Your task to perform on an android device: Is it going to rain today? Image 0: 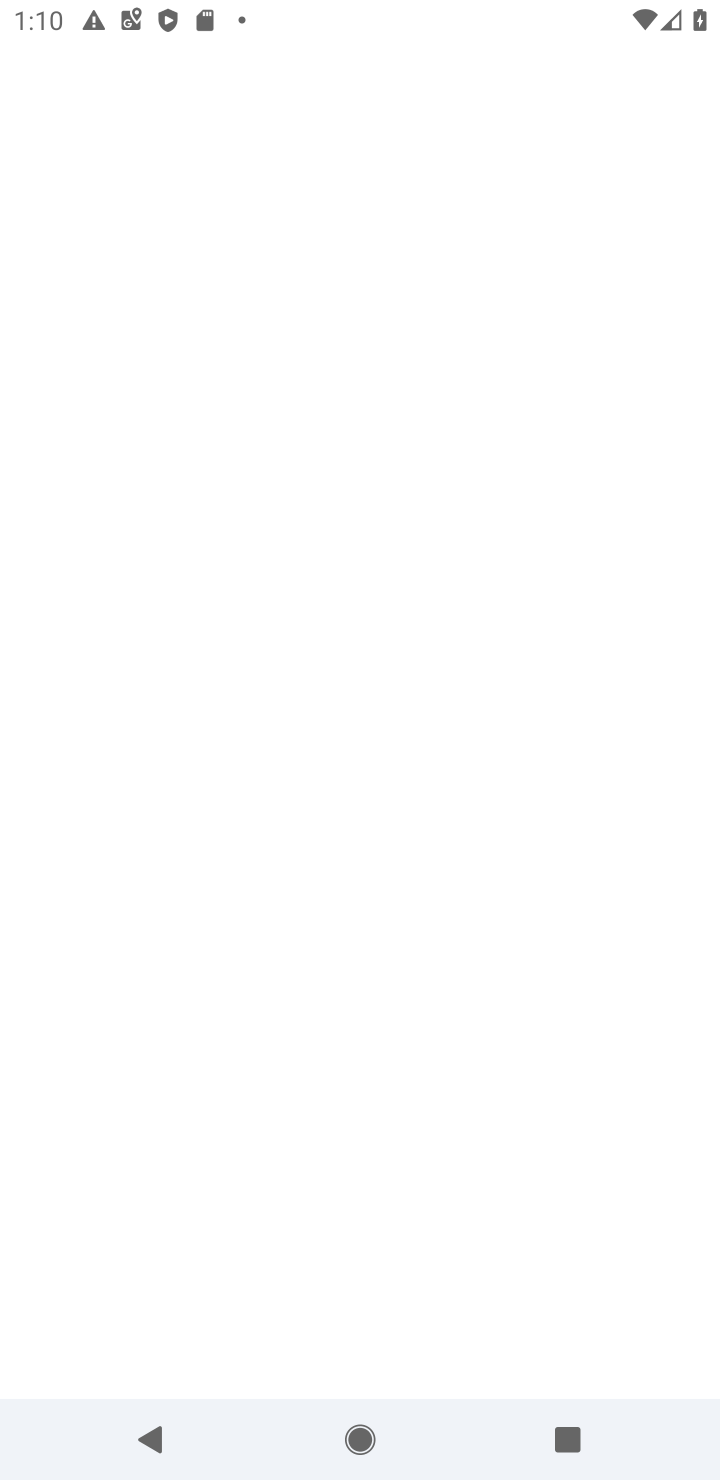
Step 0: press home button
Your task to perform on an android device: Is it going to rain today? Image 1: 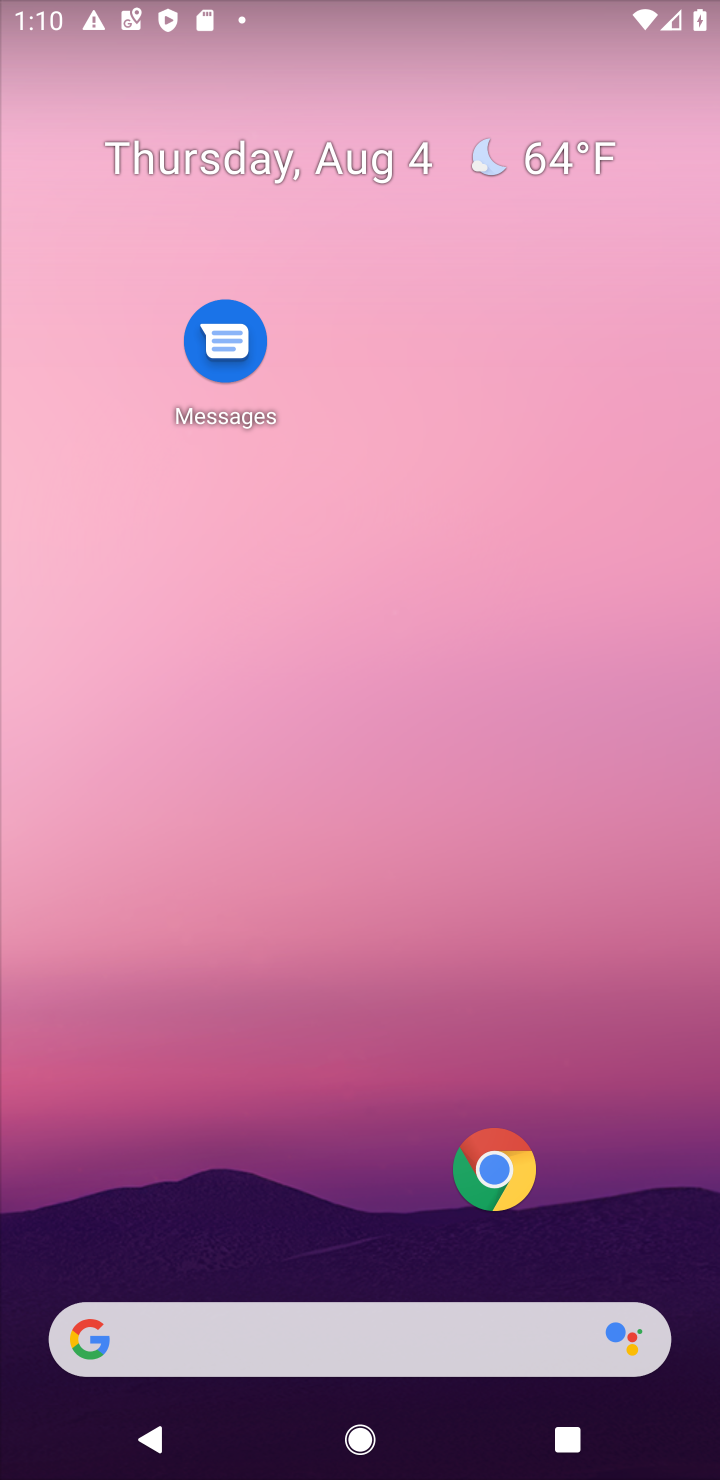
Step 1: click (270, 1340)
Your task to perform on an android device: Is it going to rain today? Image 2: 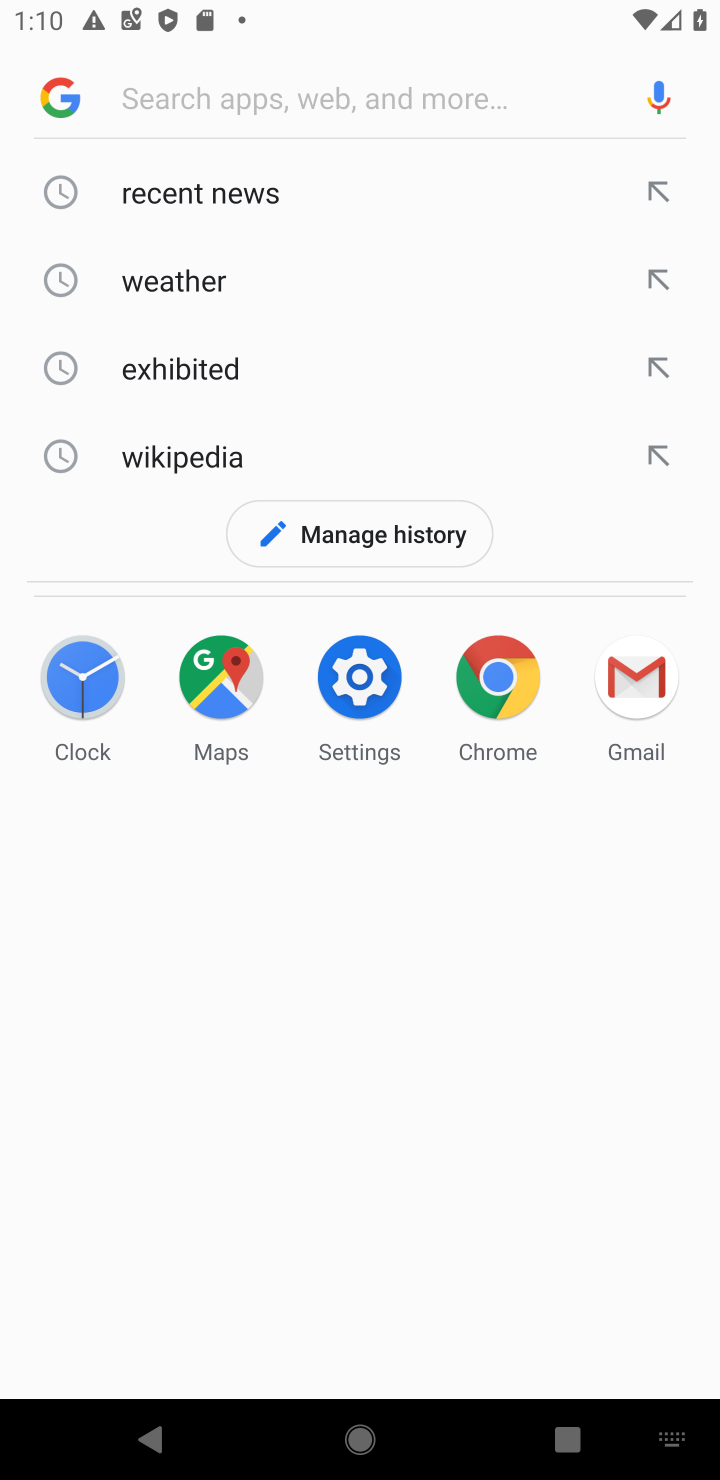
Step 2: click (199, 292)
Your task to perform on an android device: Is it going to rain today? Image 3: 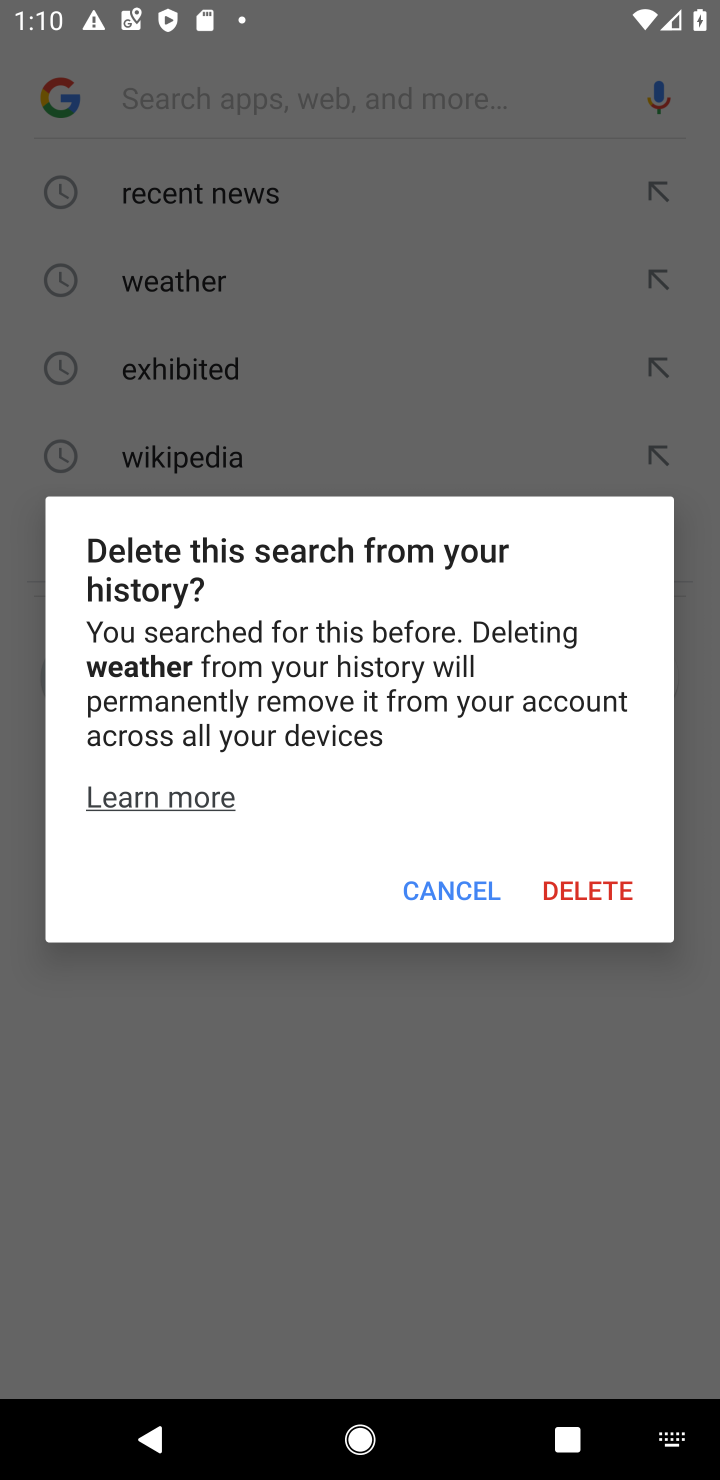
Step 3: click (460, 874)
Your task to perform on an android device: Is it going to rain today? Image 4: 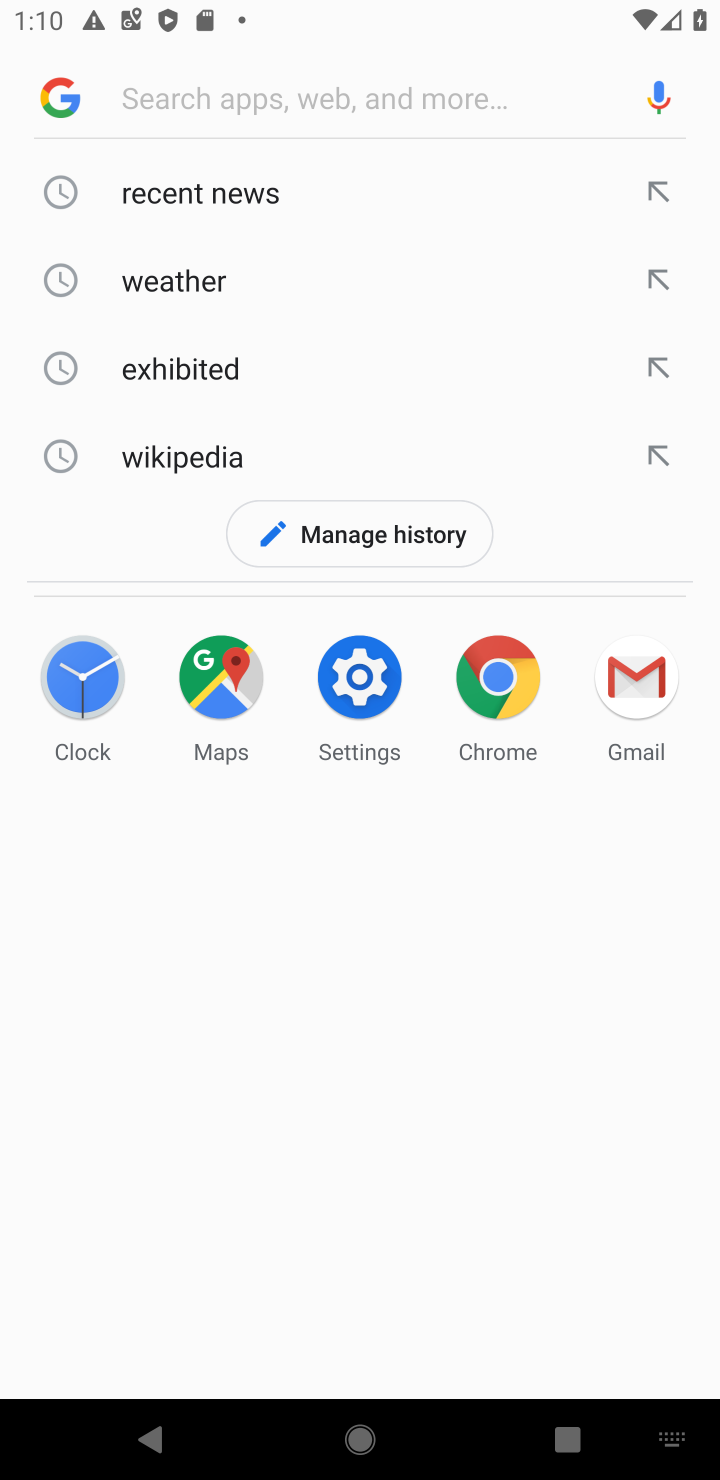
Step 4: click (204, 291)
Your task to perform on an android device: Is it going to rain today? Image 5: 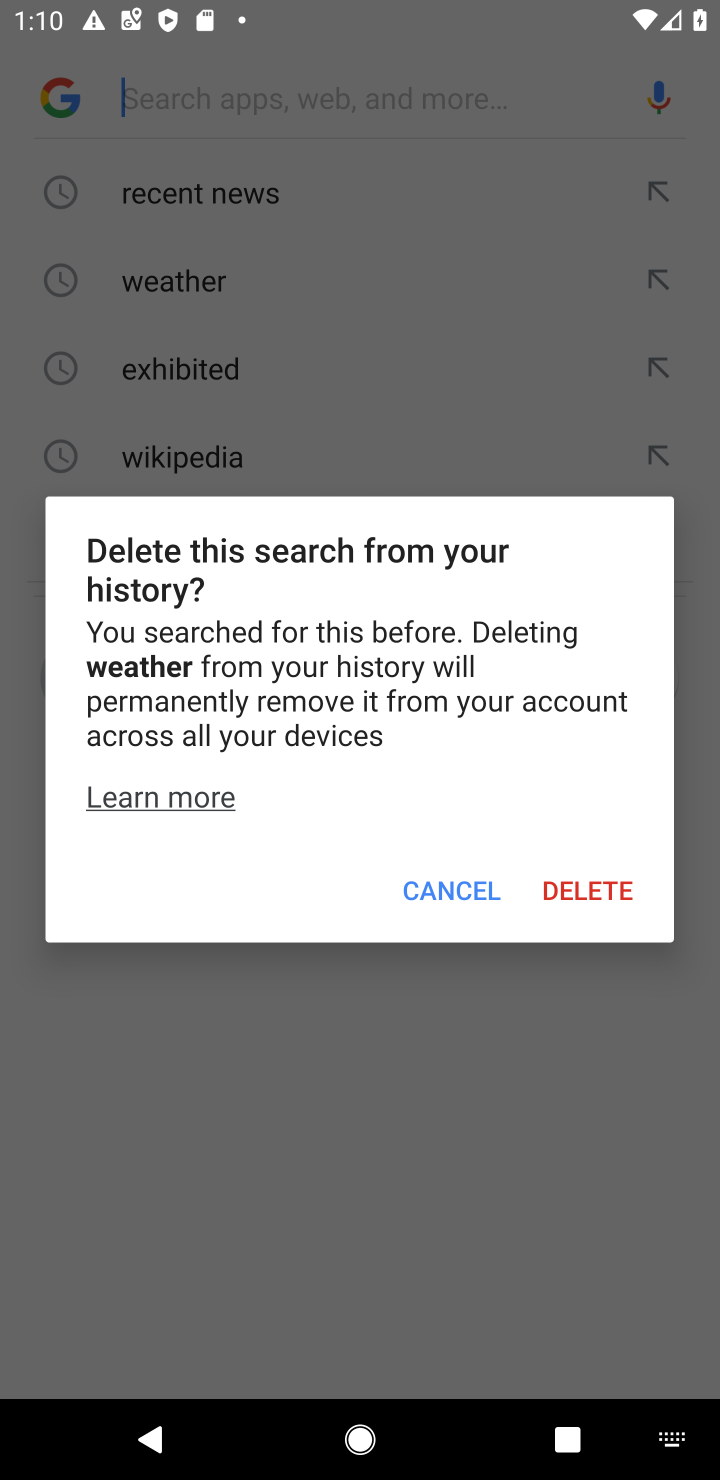
Step 5: click (459, 885)
Your task to perform on an android device: Is it going to rain today? Image 6: 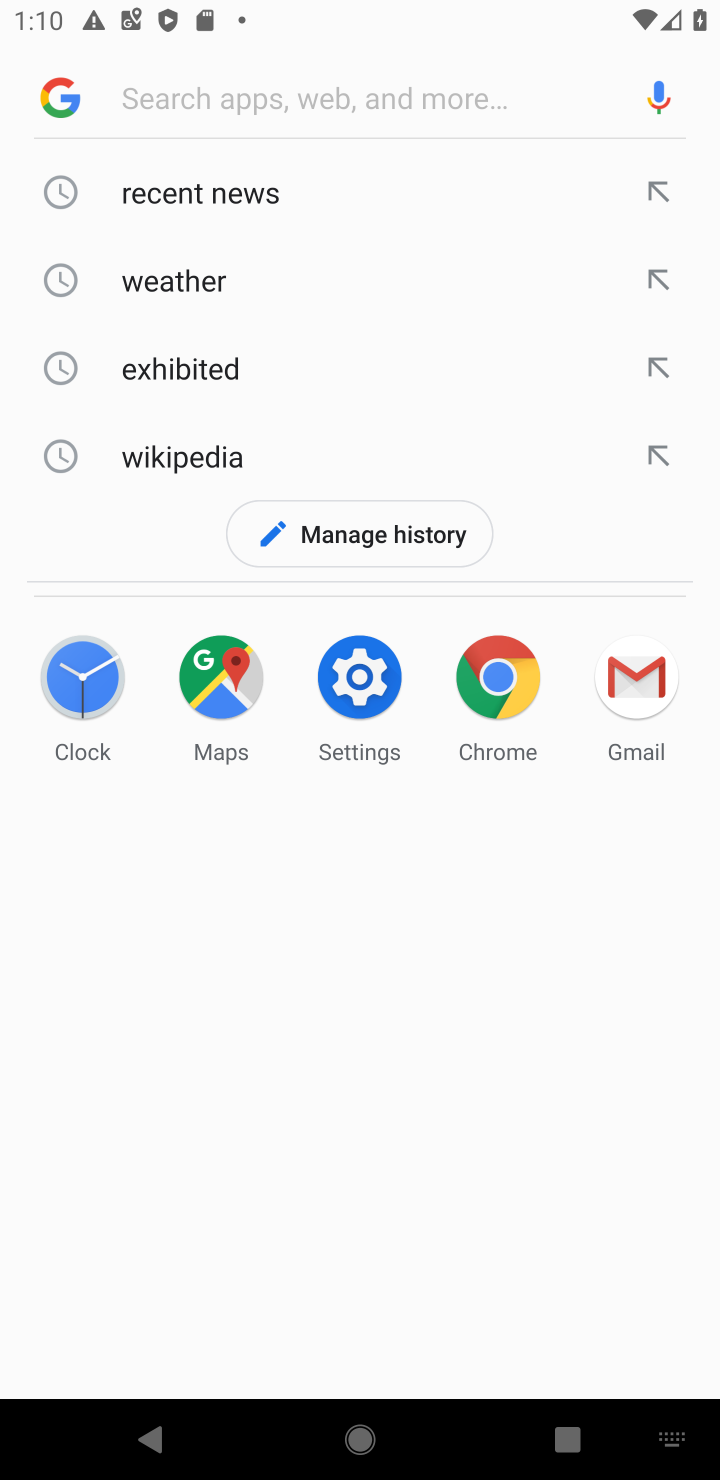
Step 6: click (154, 300)
Your task to perform on an android device: Is it going to rain today? Image 7: 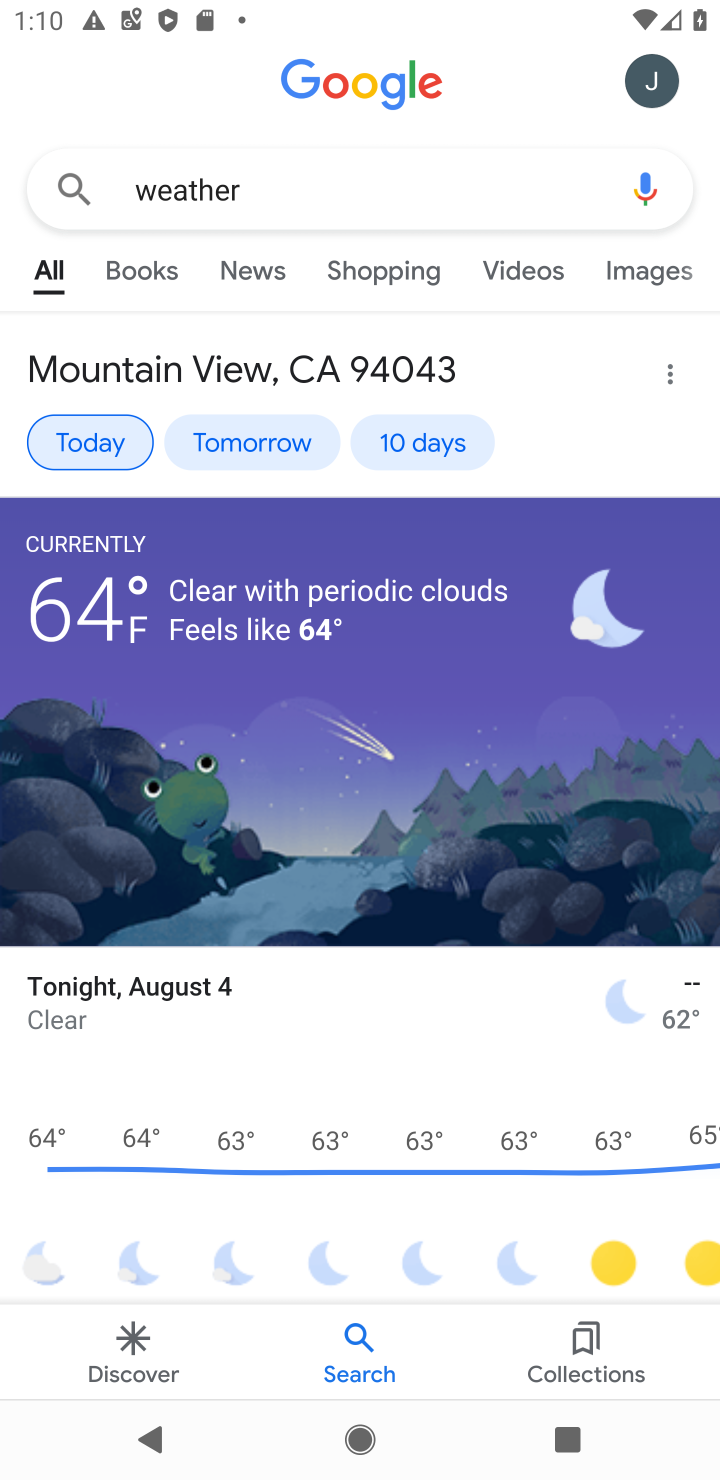
Step 7: task complete